Your task to perform on an android device: Open settings on Google Maps Image 0: 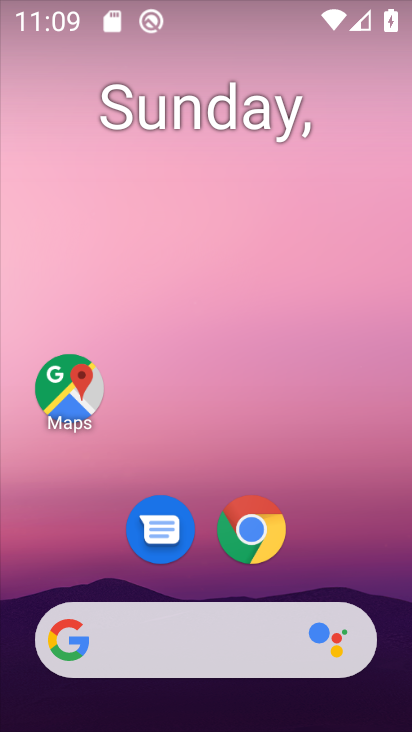
Step 0: drag from (387, 622) to (265, 89)
Your task to perform on an android device: Open settings on Google Maps Image 1: 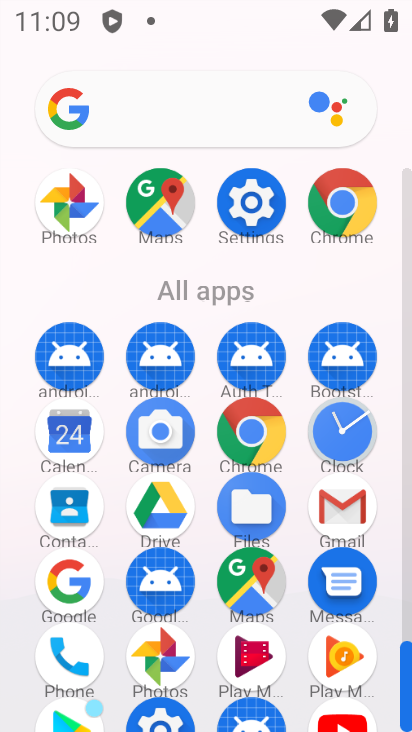
Step 1: click (259, 569)
Your task to perform on an android device: Open settings on Google Maps Image 2: 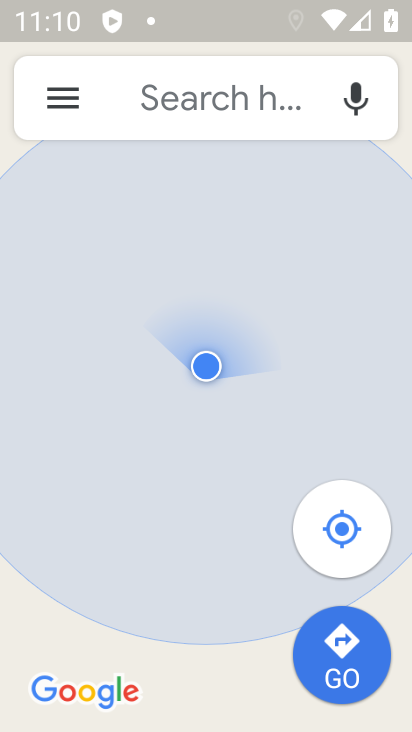
Step 2: click (71, 98)
Your task to perform on an android device: Open settings on Google Maps Image 3: 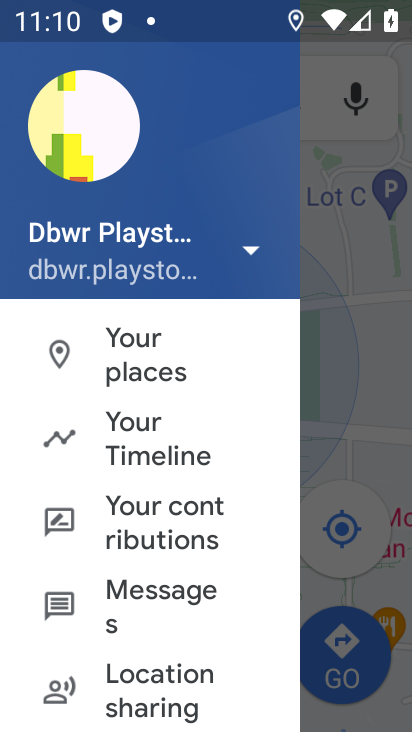
Step 3: drag from (113, 667) to (73, 155)
Your task to perform on an android device: Open settings on Google Maps Image 4: 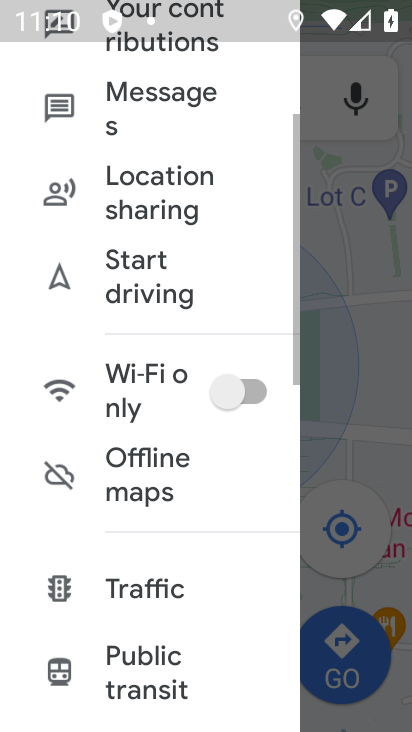
Step 4: drag from (133, 660) to (149, 137)
Your task to perform on an android device: Open settings on Google Maps Image 5: 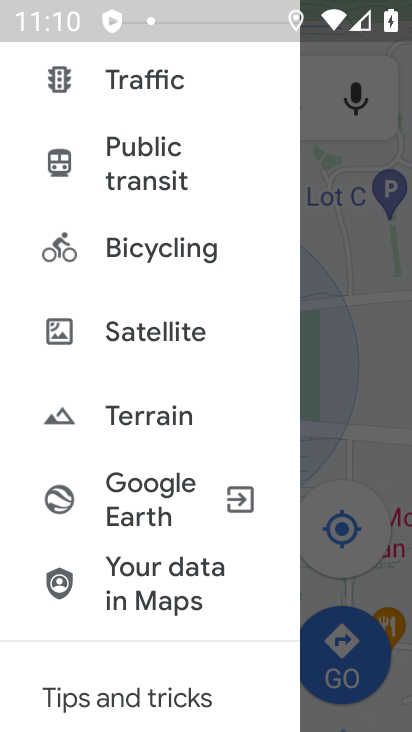
Step 5: drag from (131, 637) to (168, 203)
Your task to perform on an android device: Open settings on Google Maps Image 6: 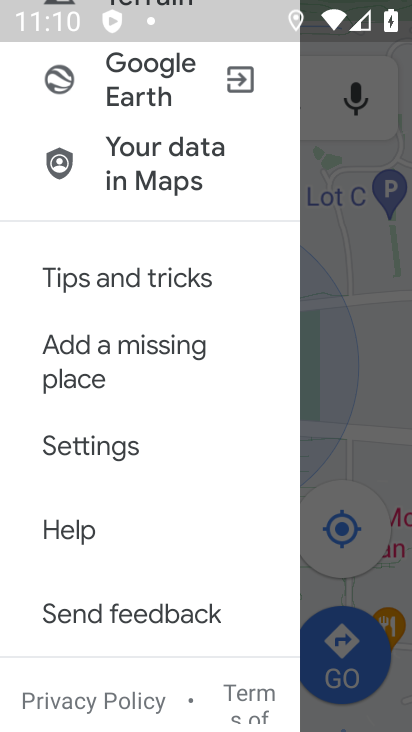
Step 6: click (129, 454)
Your task to perform on an android device: Open settings on Google Maps Image 7: 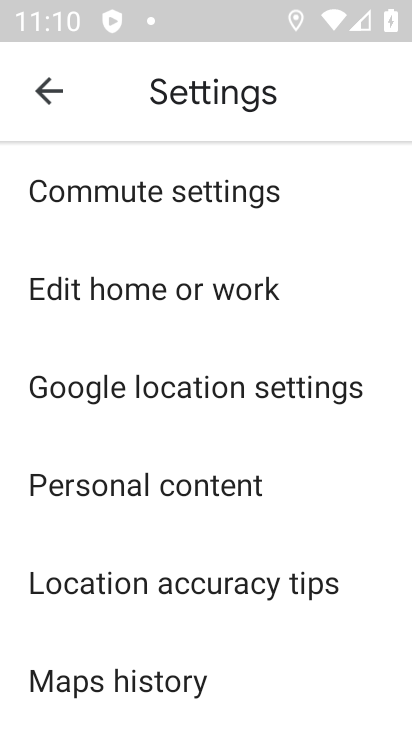
Step 7: task complete